Your task to perform on an android device: change notifications settings Image 0: 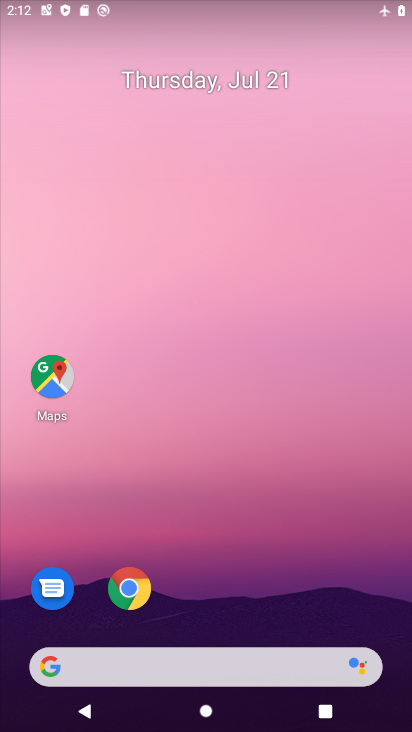
Step 0: drag from (187, 482) to (177, 114)
Your task to perform on an android device: change notifications settings Image 1: 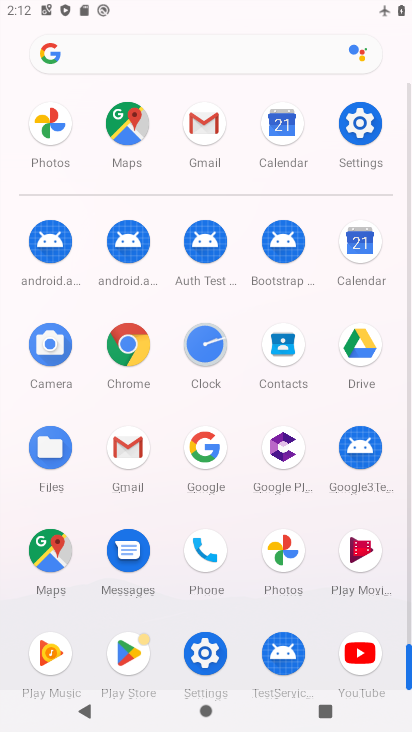
Step 1: click (195, 642)
Your task to perform on an android device: change notifications settings Image 2: 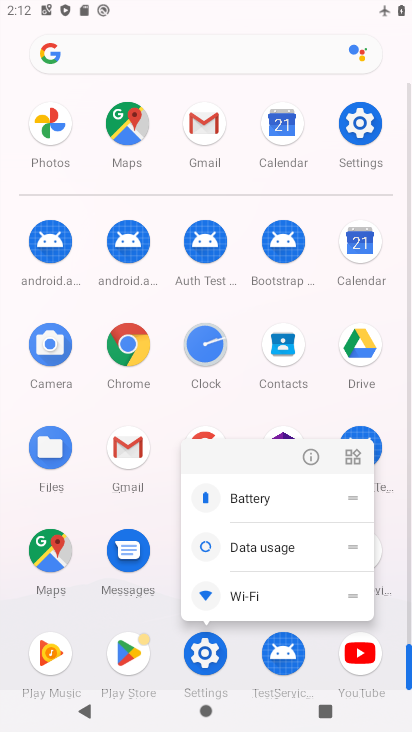
Step 2: click (314, 446)
Your task to perform on an android device: change notifications settings Image 3: 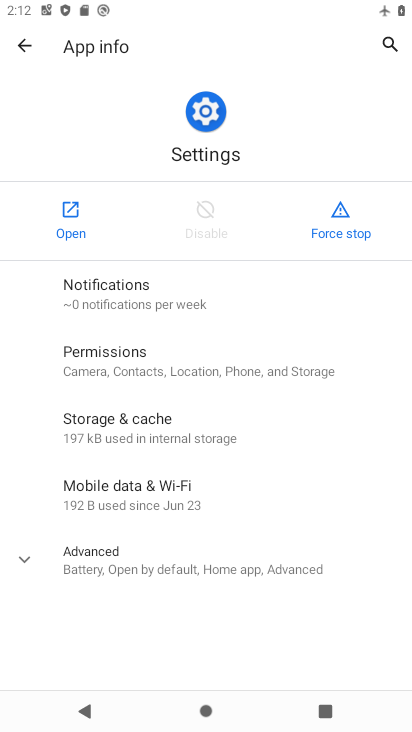
Step 3: click (65, 214)
Your task to perform on an android device: change notifications settings Image 4: 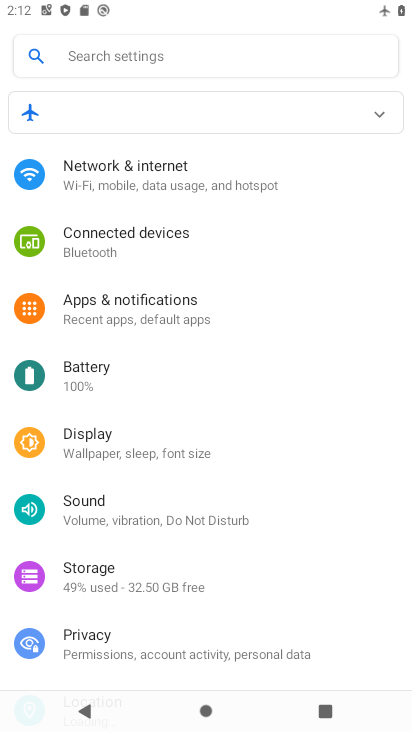
Step 4: click (179, 312)
Your task to perform on an android device: change notifications settings Image 5: 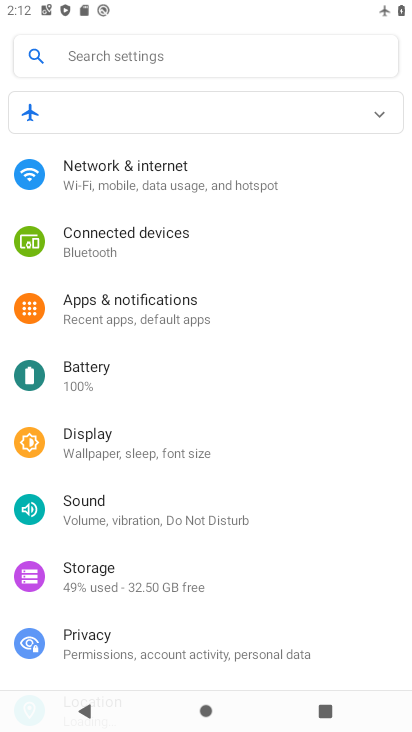
Step 5: drag from (192, 573) to (211, 337)
Your task to perform on an android device: change notifications settings Image 6: 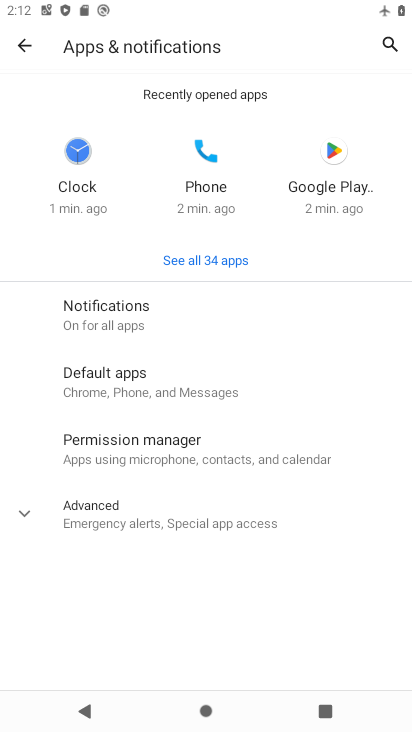
Step 6: click (146, 316)
Your task to perform on an android device: change notifications settings Image 7: 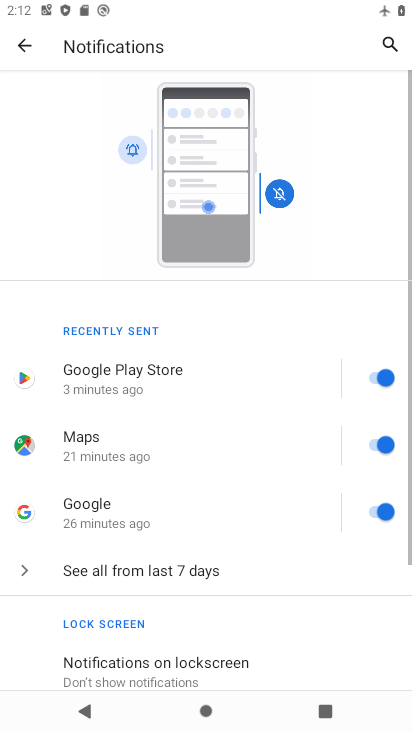
Step 7: drag from (201, 605) to (400, 153)
Your task to perform on an android device: change notifications settings Image 8: 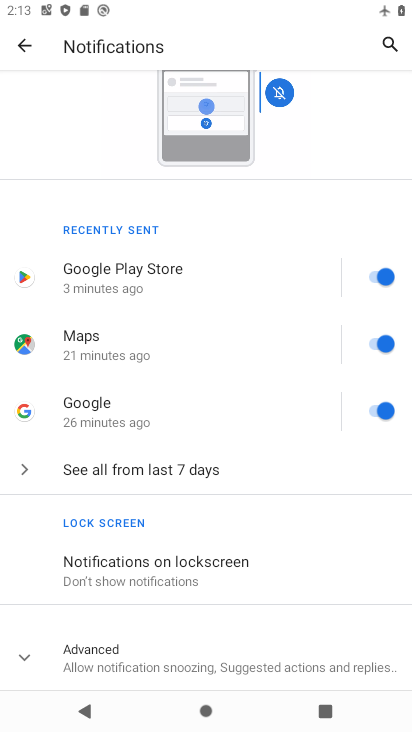
Step 8: click (166, 669)
Your task to perform on an android device: change notifications settings Image 9: 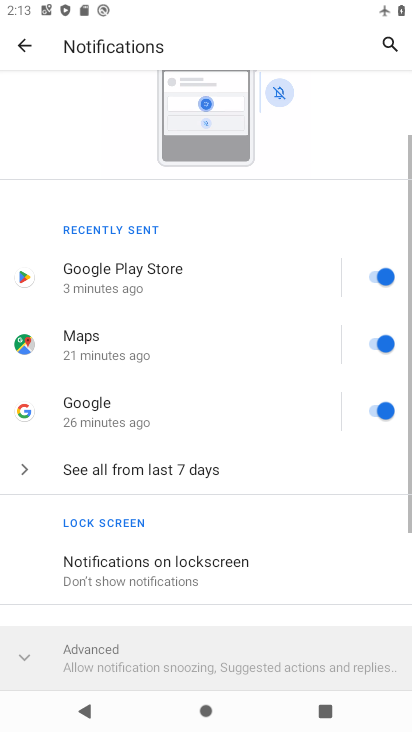
Step 9: drag from (167, 658) to (337, 133)
Your task to perform on an android device: change notifications settings Image 10: 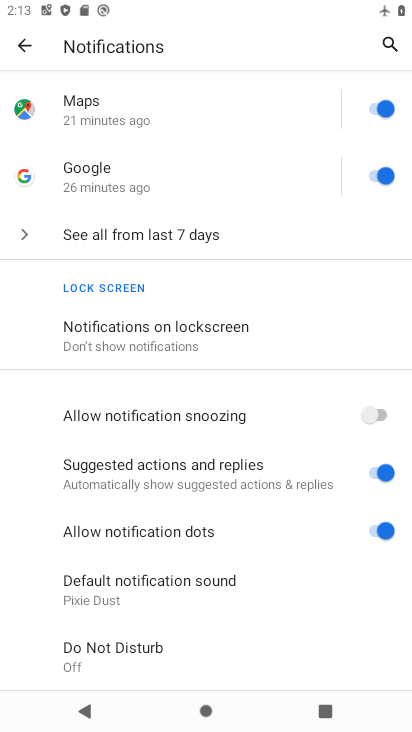
Step 10: drag from (304, 279) to (345, 696)
Your task to perform on an android device: change notifications settings Image 11: 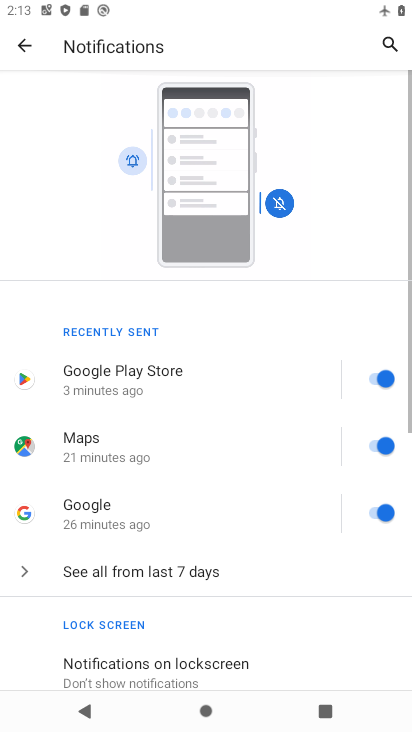
Step 11: drag from (324, 624) to (392, 227)
Your task to perform on an android device: change notifications settings Image 12: 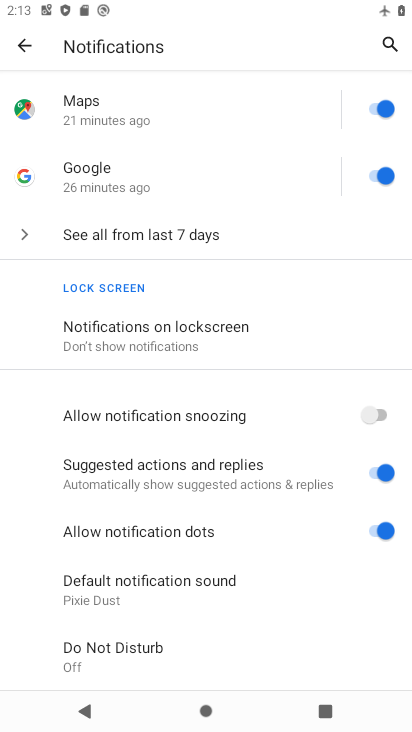
Step 12: click (365, 411)
Your task to perform on an android device: change notifications settings Image 13: 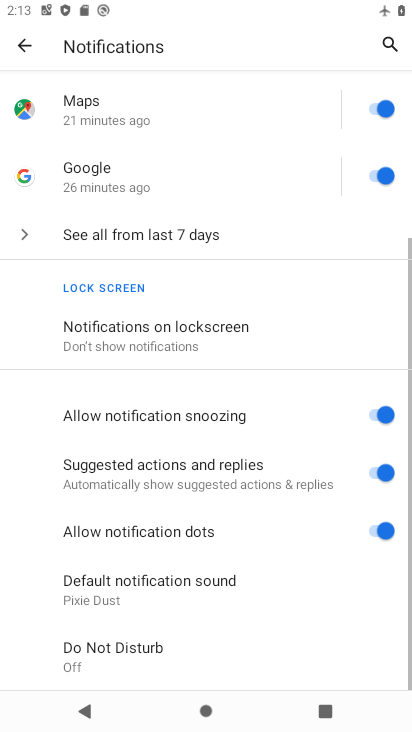
Step 13: task complete